Your task to perform on an android device: Search for bose soundsport free on walmart, select the first entry, and add it to the cart. Image 0: 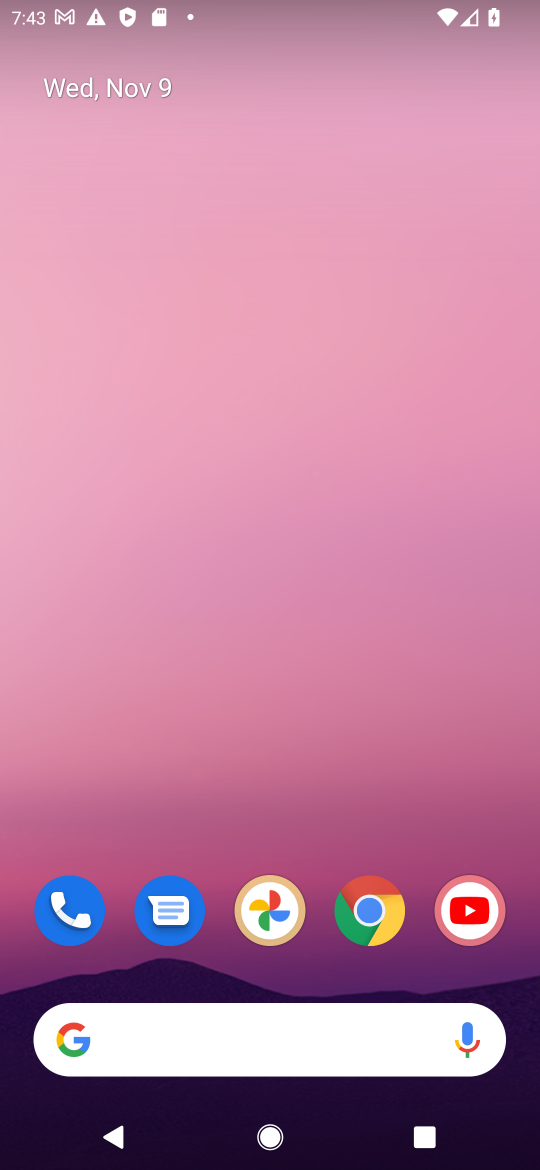
Step 0: click (380, 920)
Your task to perform on an android device: Search for bose soundsport free on walmart, select the first entry, and add it to the cart. Image 1: 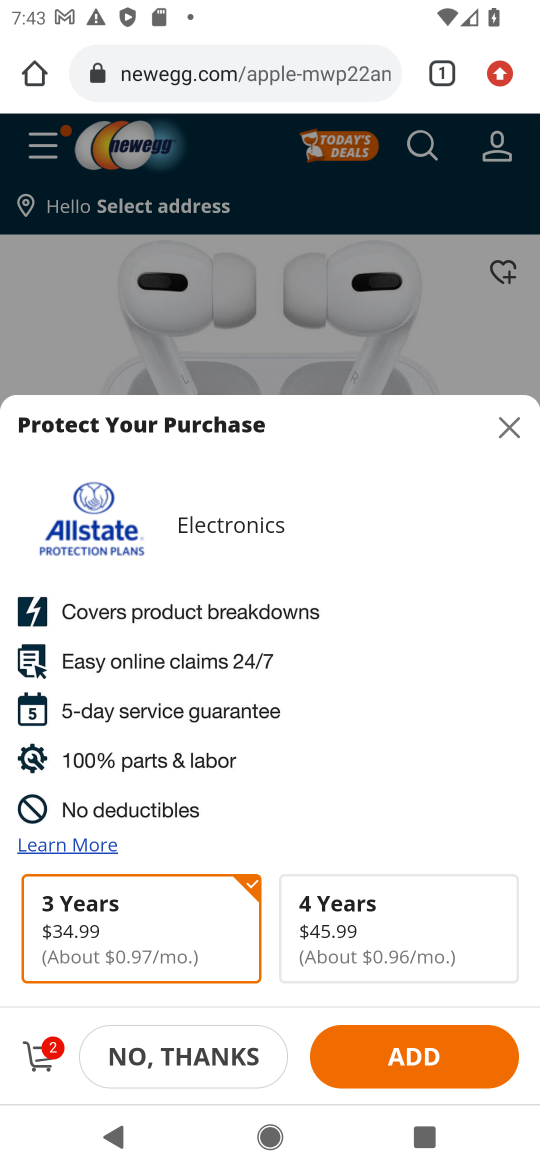
Step 1: click (239, 80)
Your task to perform on an android device: Search for bose soundsport free on walmart, select the first entry, and add it to the cart. Image 2: 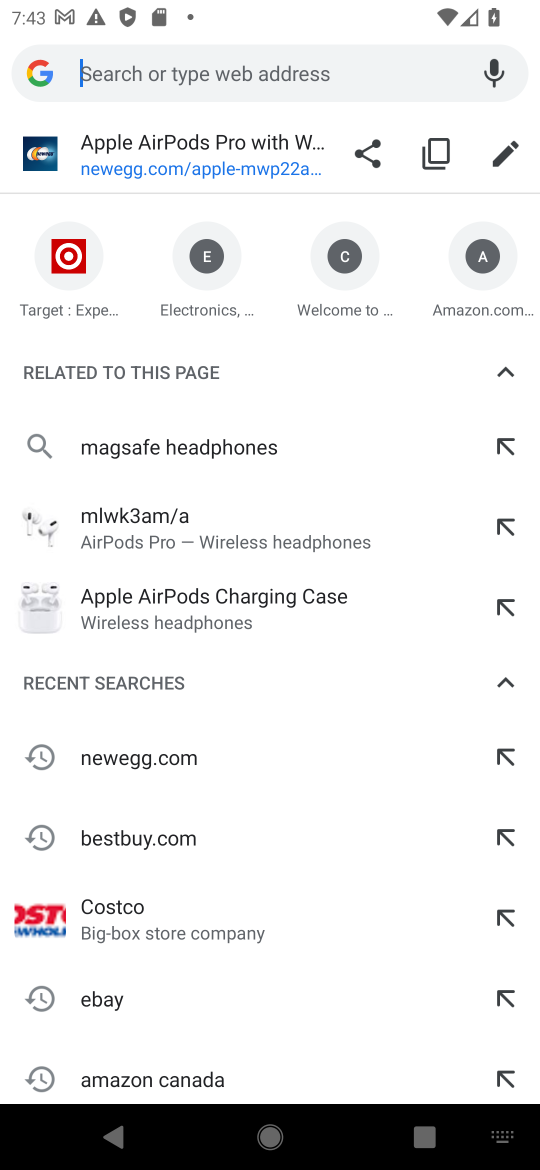
Step 2: type "walmart.com"
Your task to perform on an android device: Search for bose soundsport free on walmart, select the first entry, and add it to the cart. Image 3: 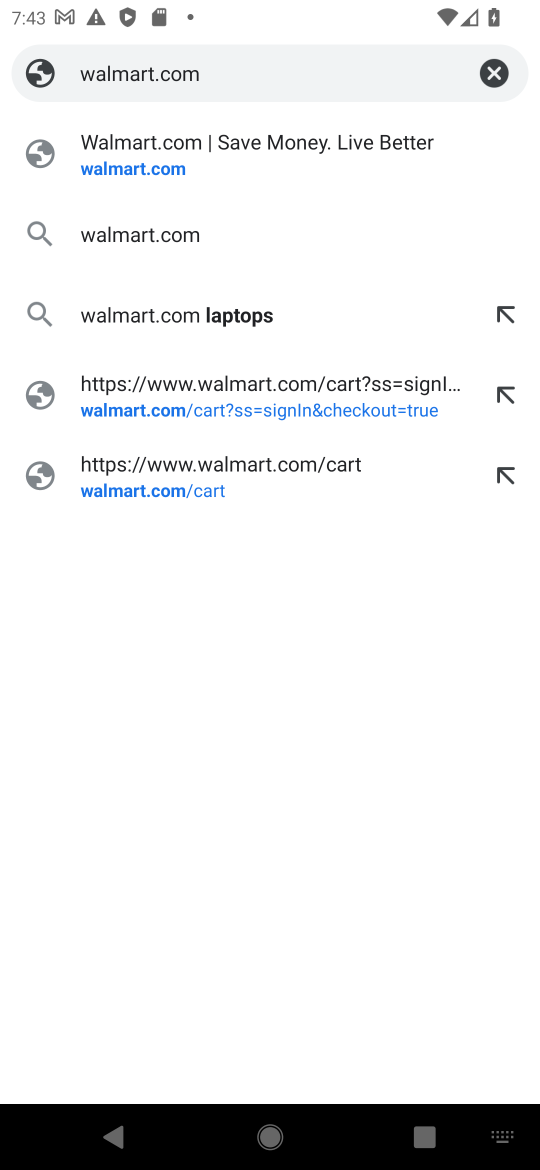
Step 3: click (145, 177)
Your task to perform on an android device: Search for bose soundsport free on walmart, select the first entry, and add it to the cart. Image 4: 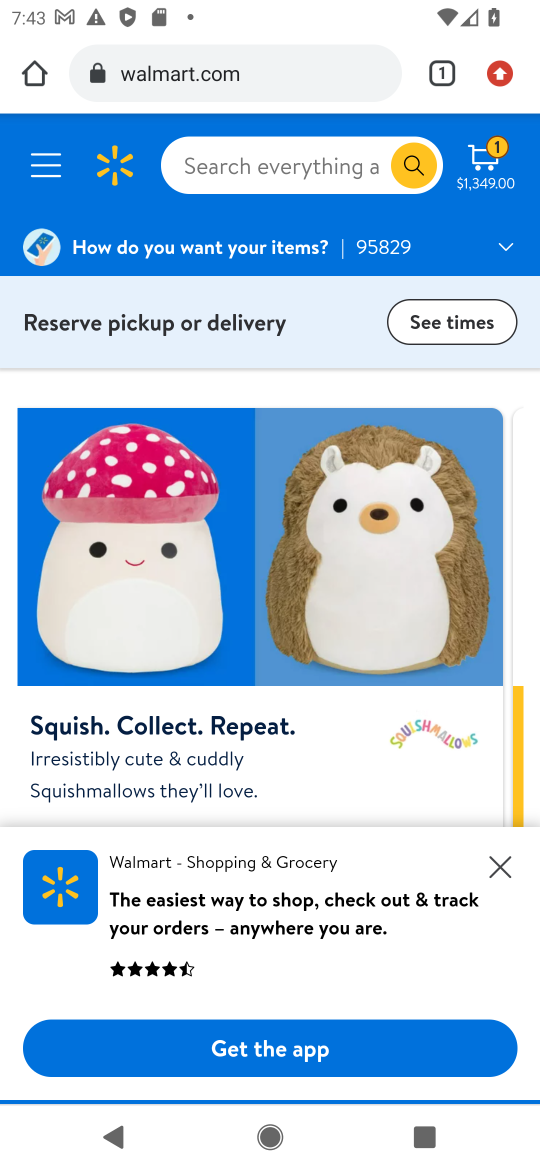
Step 4: click (237, 146)
Your task to perform on an android device: Search for bose soundsport free on walmart, select the first entry, and add it to the cart. Image 5: 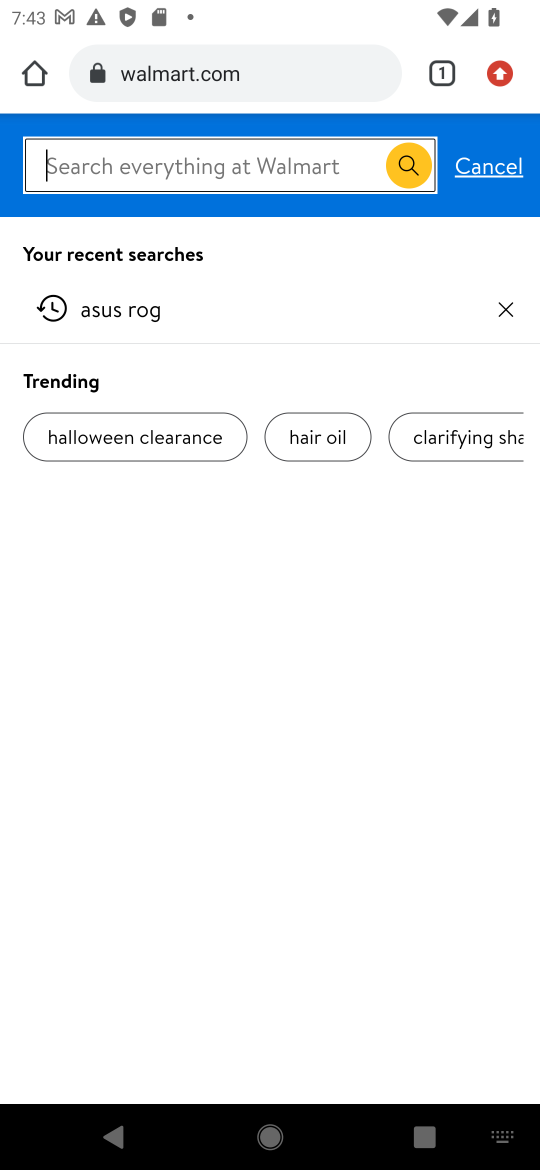
Step 5: type "bose soundsport free"
Your task to perform on an android device: Search for bose soundsport free on walmart, select the first entry, and add it to the cart. Image 6: 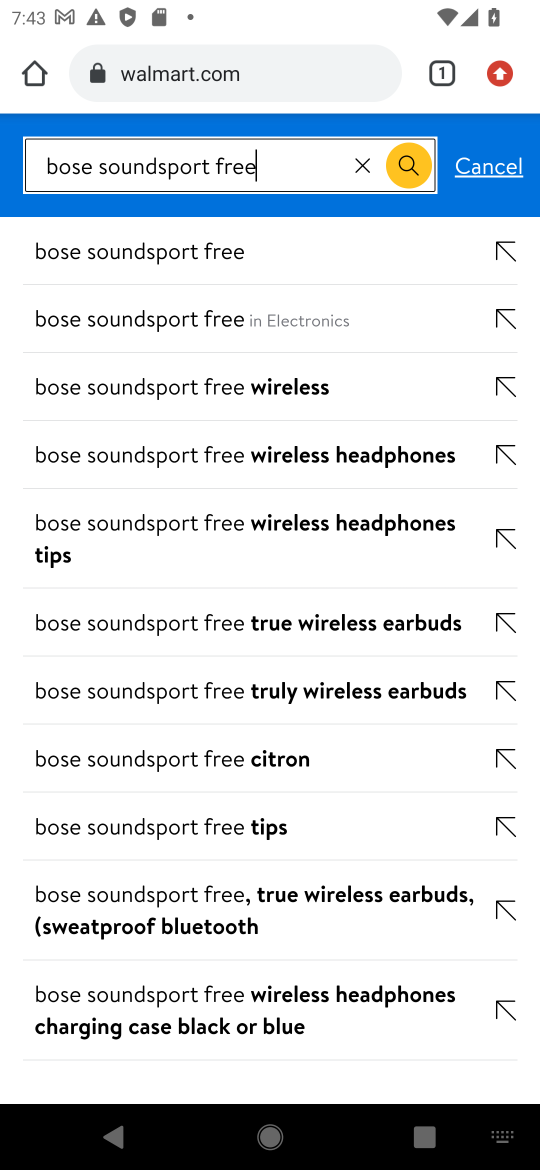
Step 6: click (154, 269)
Your task to perform on an android device: Search for bose soundsport free on walmart, select the first entry, and add it to the cart. Image 7: 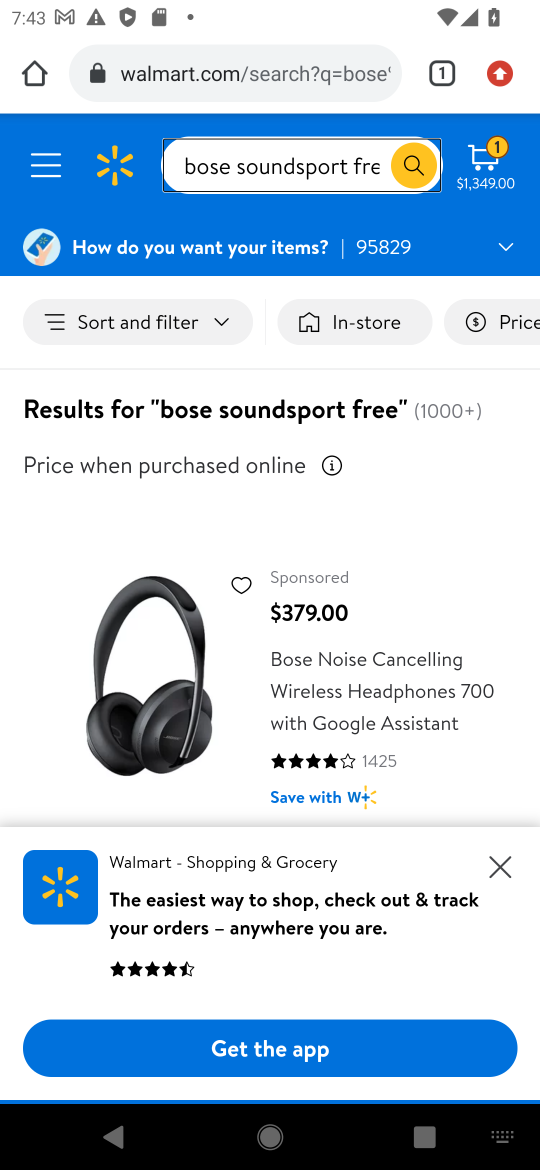
Step 7: task complete